Your task to perform on an android device: turn off improve location accuracy Image 0: 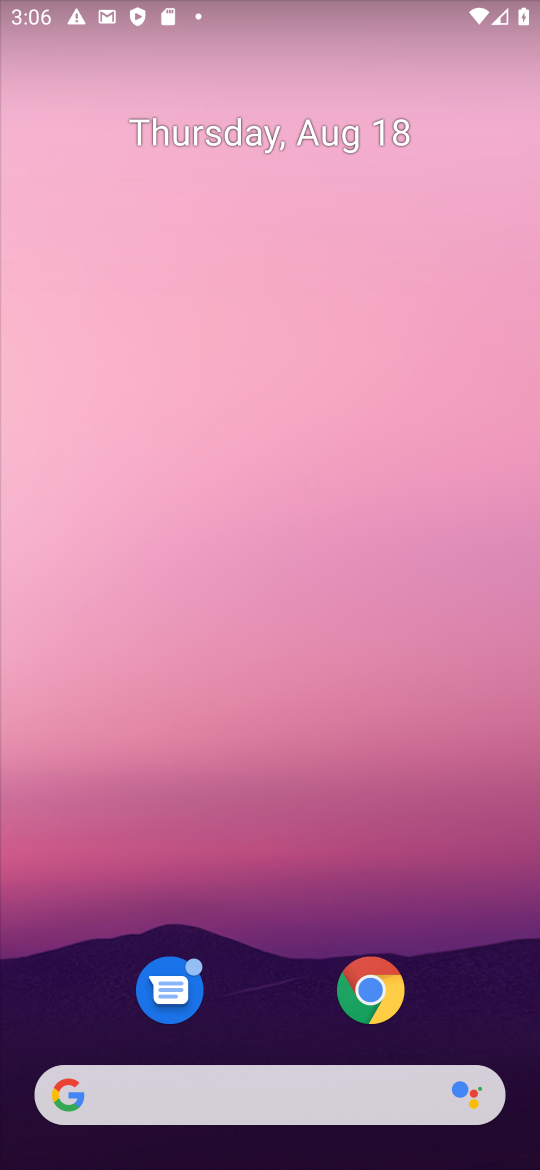
Step 0: drag from (262, 515) to (255, 1127)
Your task to perform on an android device: turn off improve location accuracy Image 1: 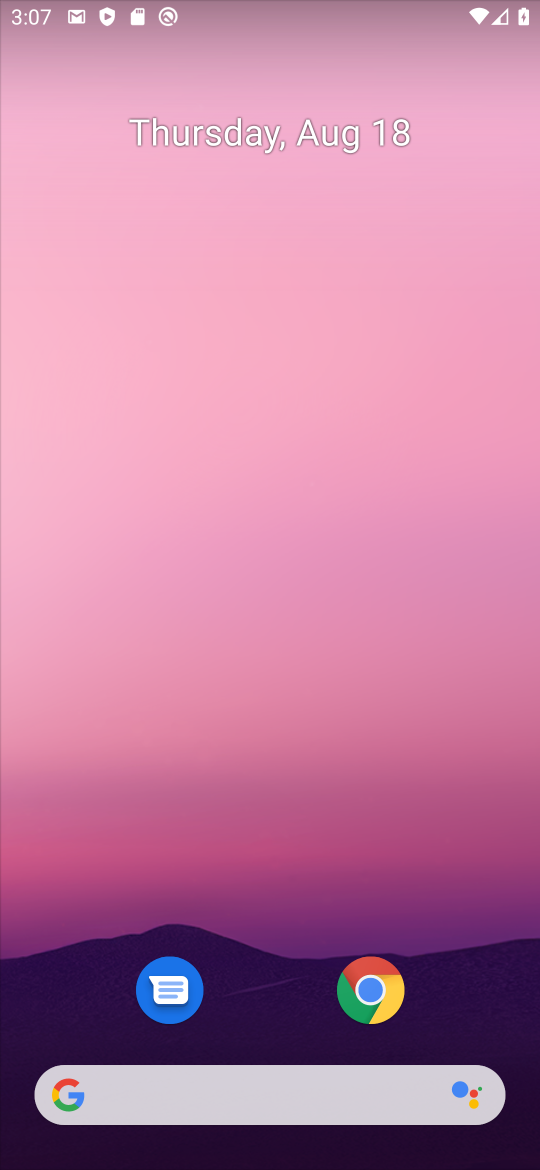
Step 1: drag from (271, 966) to (295, 180)
Your task to perform on an android device: turn off improve location accuracy Image 2: 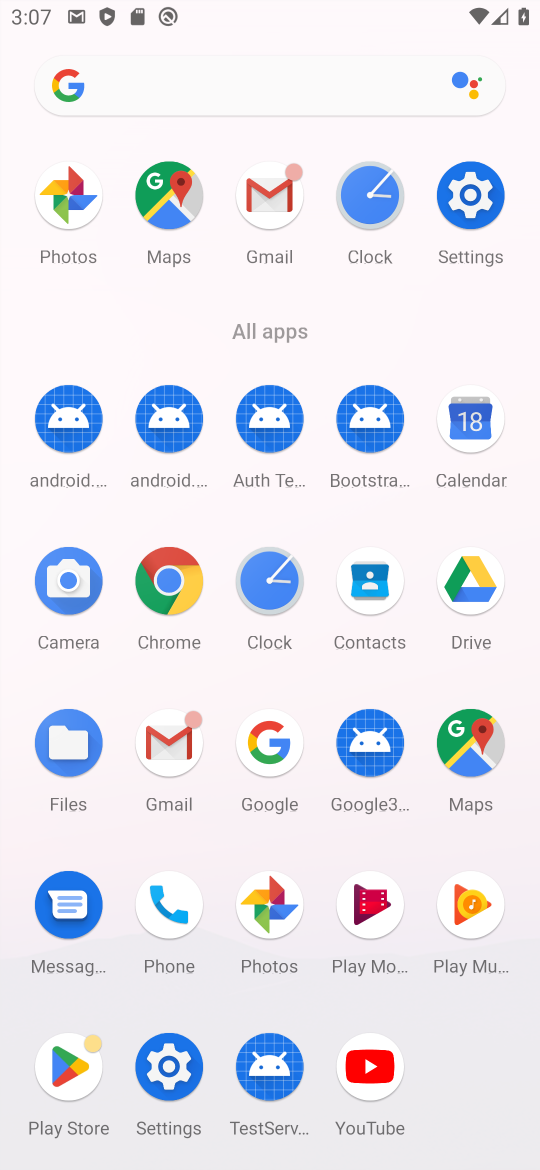
Step 2: click (170, 1047)
Your task to perform on an android device: turn off improve location accuracy Image 3: 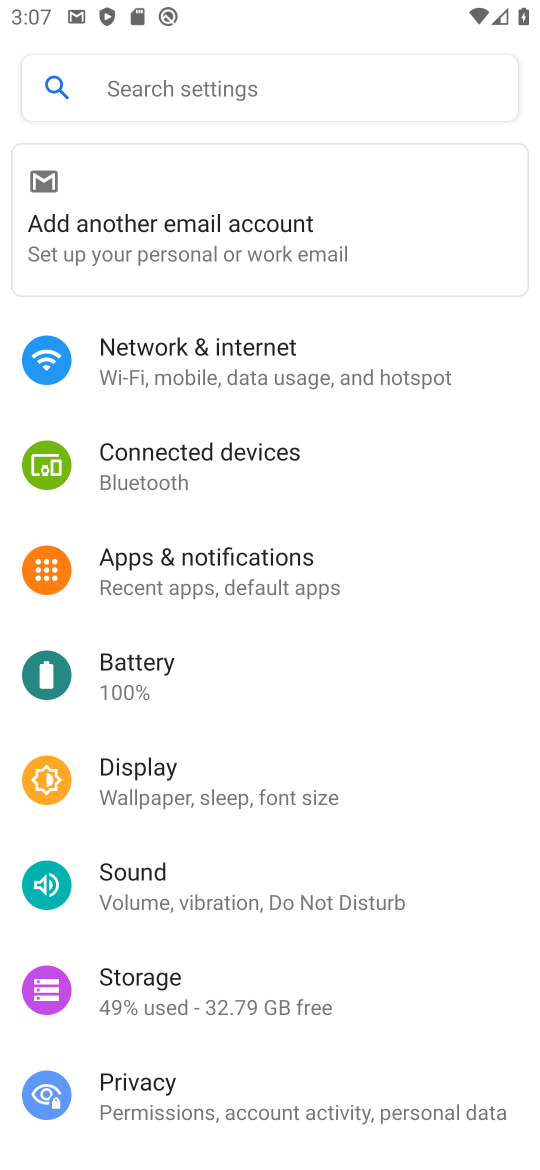
Step 3: drag from (261, 1043) to (298, 544)
Your task to perform on an android device: turn off improve location accuracy Image 4: 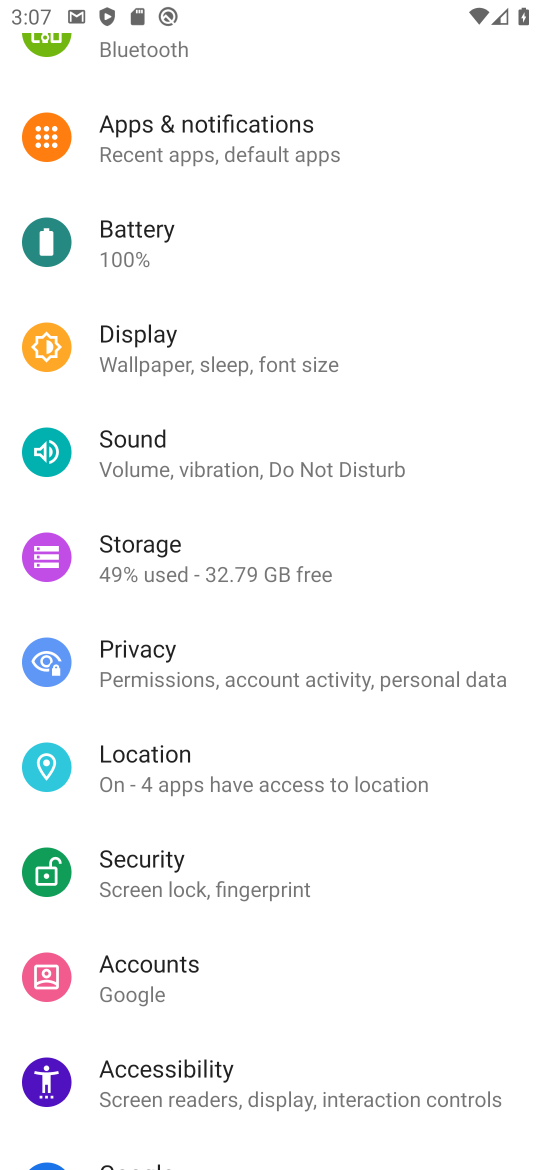
Step 4: click (162, 778)
Your task to perform on an android device: turn off improve location accuracy Image 5: 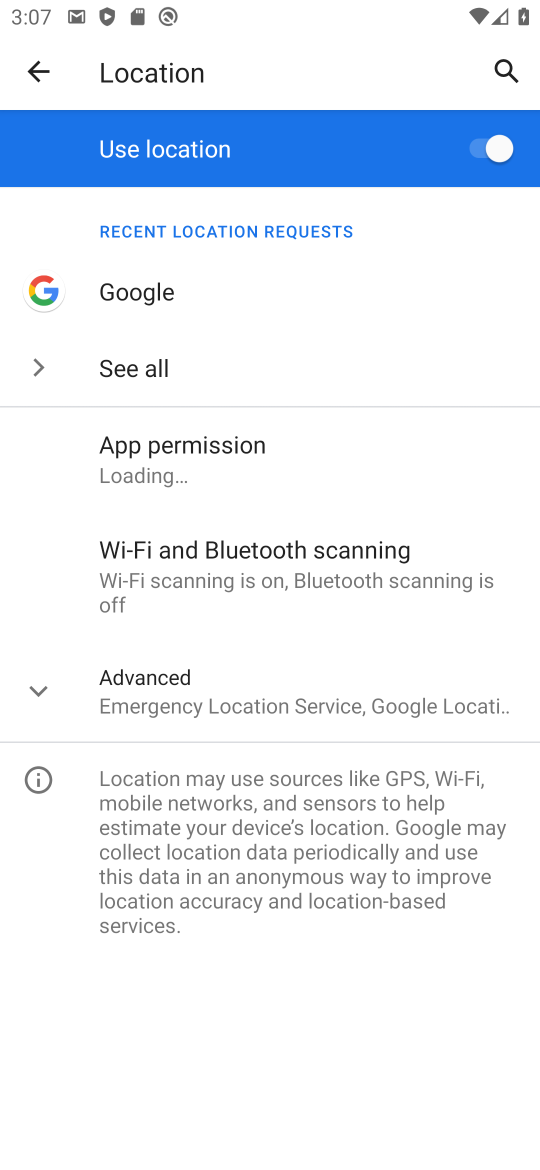
Step 5: click (177, 695)
Your task to perform on an android device: turn off improve location accuracy Image 6: 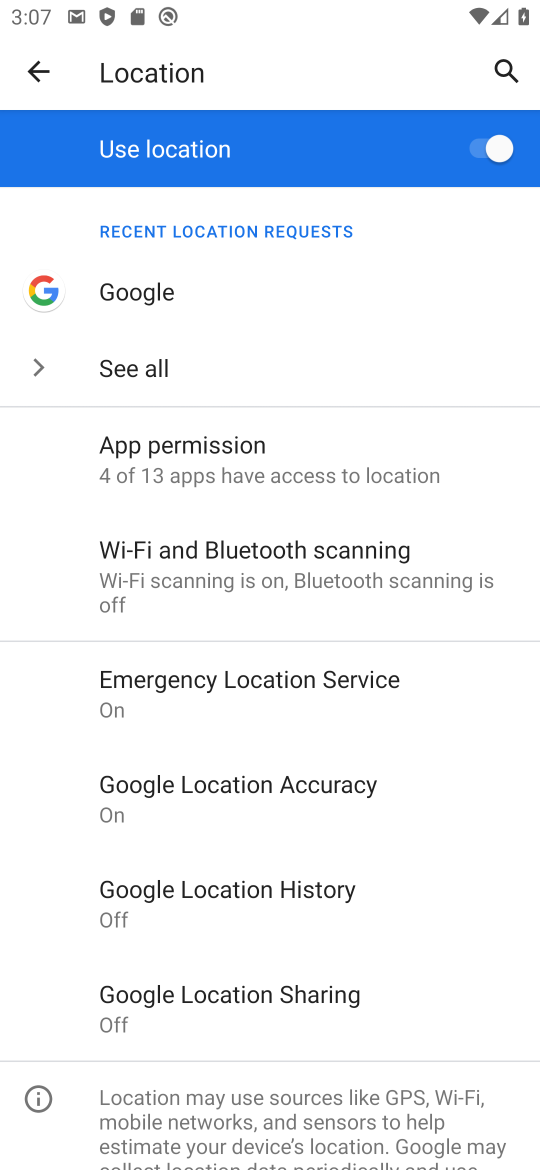
Step 6: click (308, 793)
Your task to perform on an android device: turn off improve location accuracy Image 7: 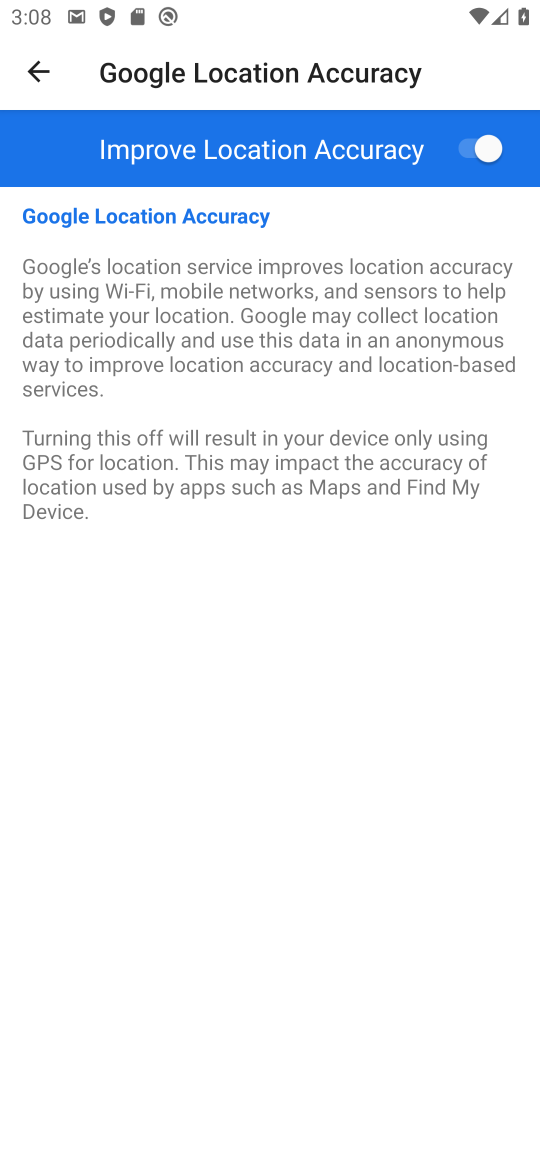
Step 7: click (453, 150)
Your task to perform on an android device: turn off improve location accuracy Image 8: 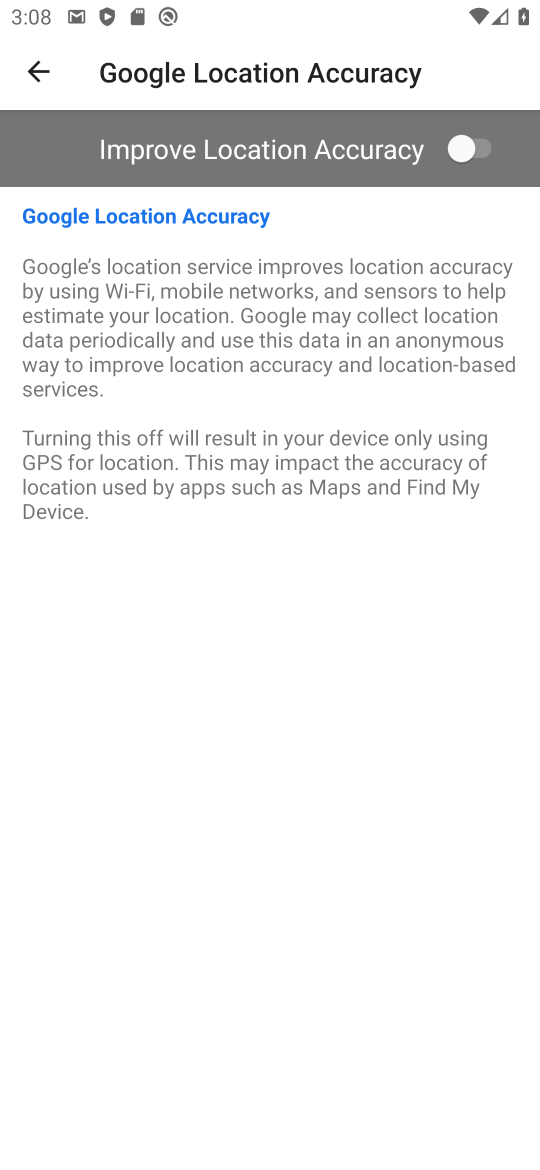
Step 8: task complete